Your task to perform on an android device: change timer sound Image 0: 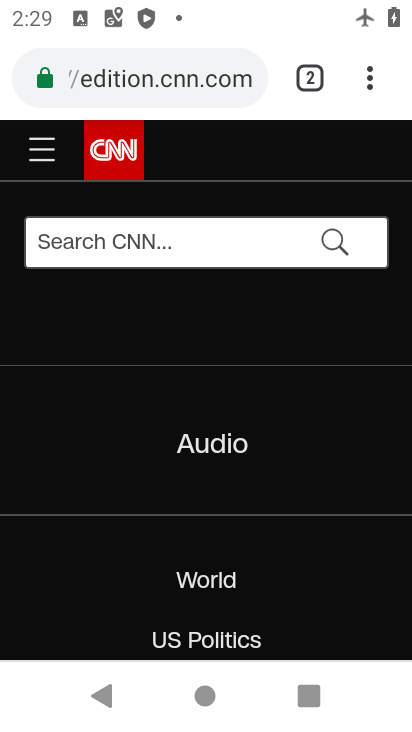
Step 0: press home button
Your task to perform on an android device: change timer sound Image 1: 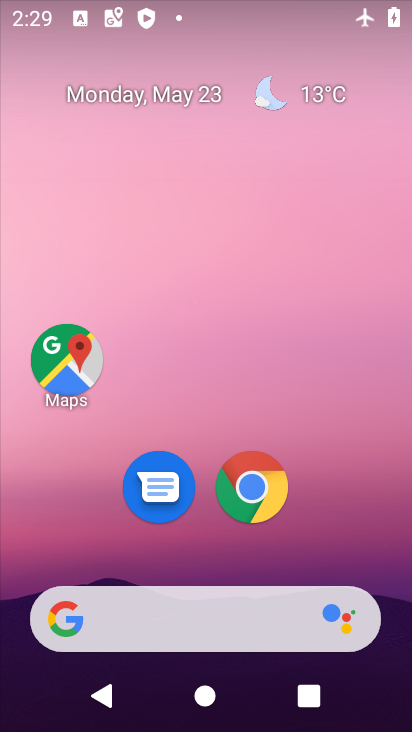
Step 1: drag from (390, 630) to (352, 37)
Your task to perform on an android device: change timer sound Image 2: 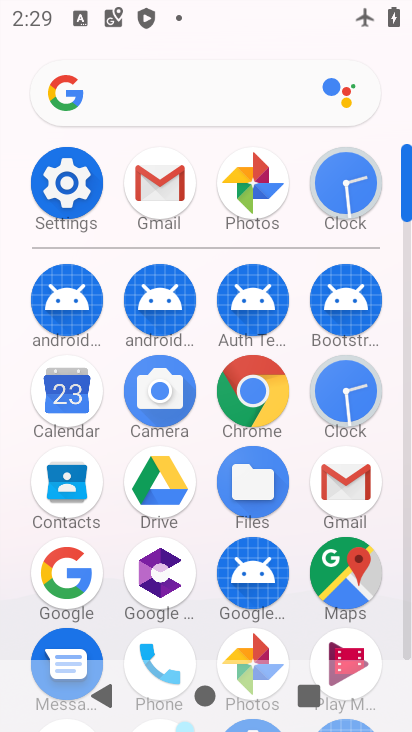
Step 2: click (404, 634)
Your task to perform on an android device: change timer sound Image 3: 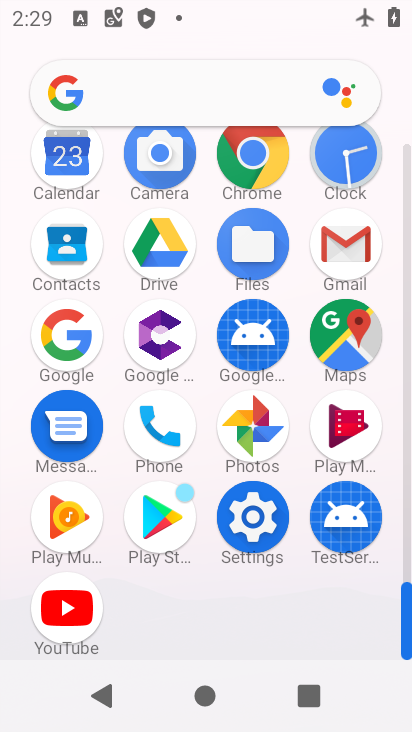
Step 3: click (247, 516)
Your task to perform on an android device: change timer sound Image 4: 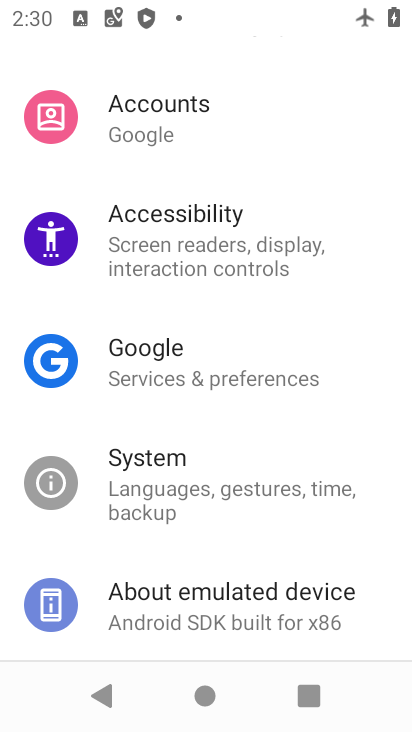
Step 4: press home button
Your task to perform on an android device: change timer sound Image 5: 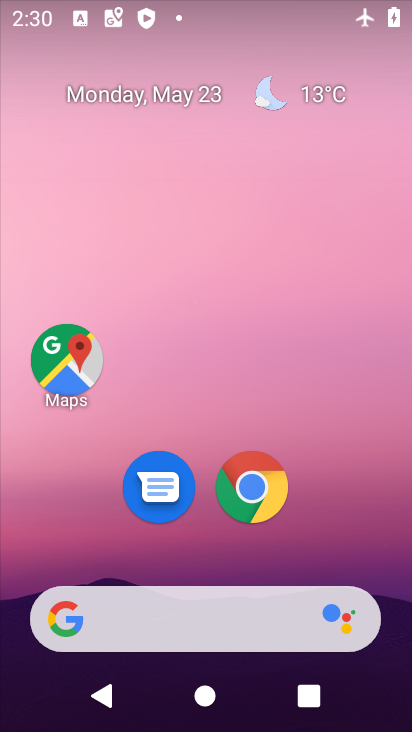
Step 5: drag from (403, 594) to (354, 40)
Your task to perform on an android device: change timer sound Image 6: 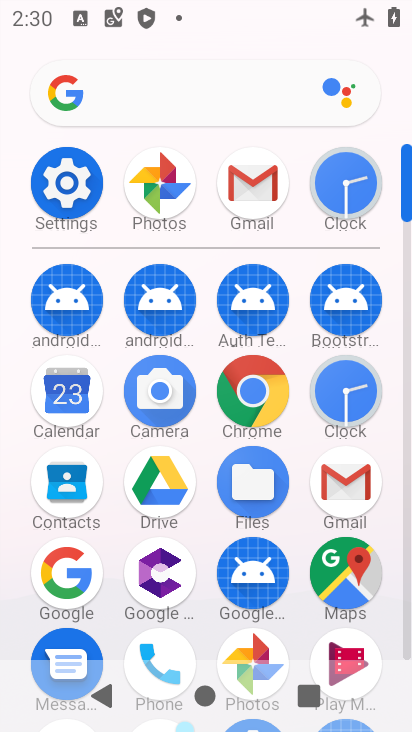
Step 6: click (347, 389)
Your task to perform on an android device: change timer sound Image 7: 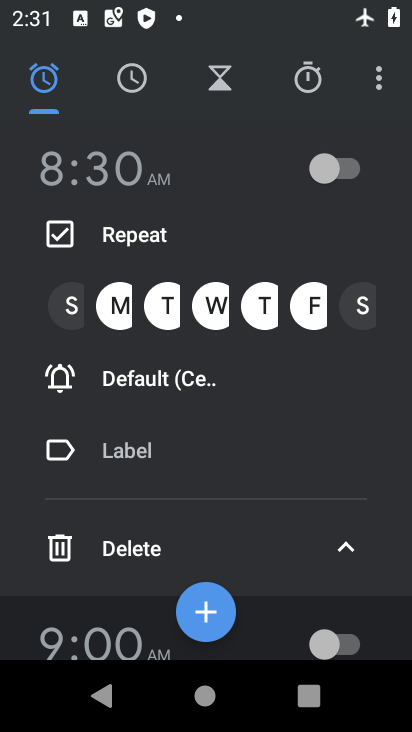
Step 7: click (382, 83)
Your task to perform on an android device: change timer sound Image 8: 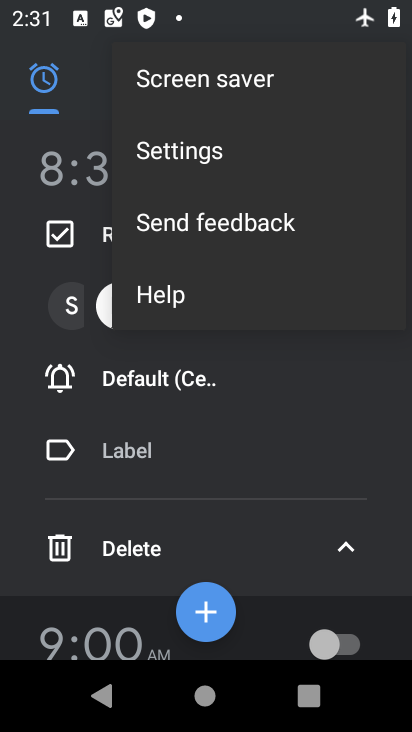
Step 8: click (182, 163)
Your task to perform on an android device: change timer sound Image 9: 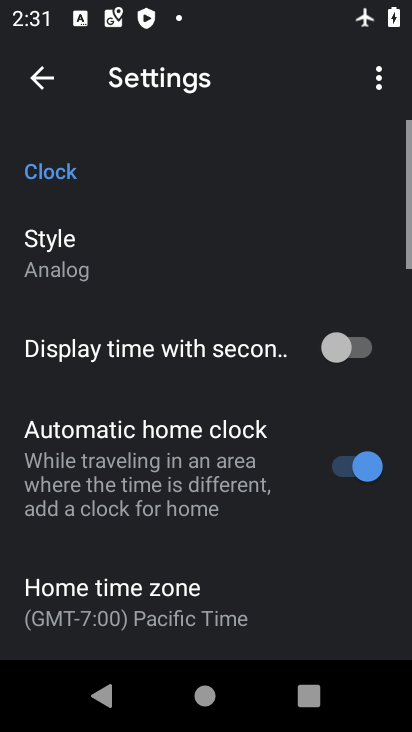
Step 9: drag from (248, 592) to (205, 21)
Your task to perform on an android device: change timer sound Image 10: 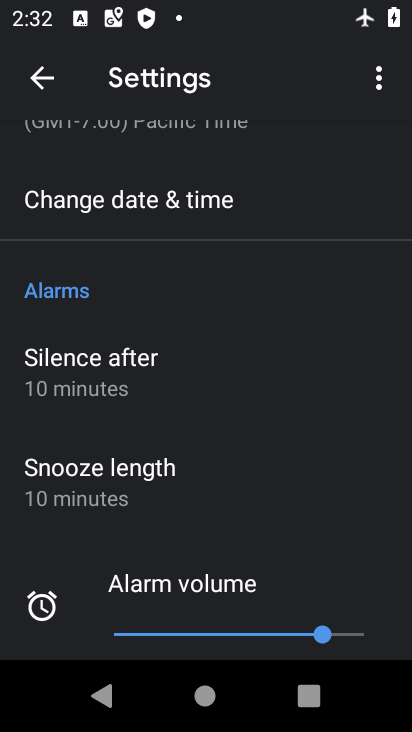
Step 10: drag from (179, 483) to (207, 58)
Your task to perform on an android device: change timer sound Image 11: 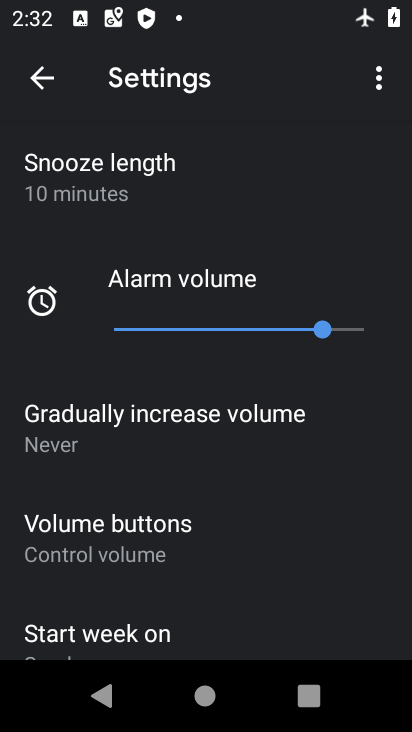
Step 11: drag from (172, 612) to (196, 222)
Your task to perform on an android device: change timer sound Image 12: 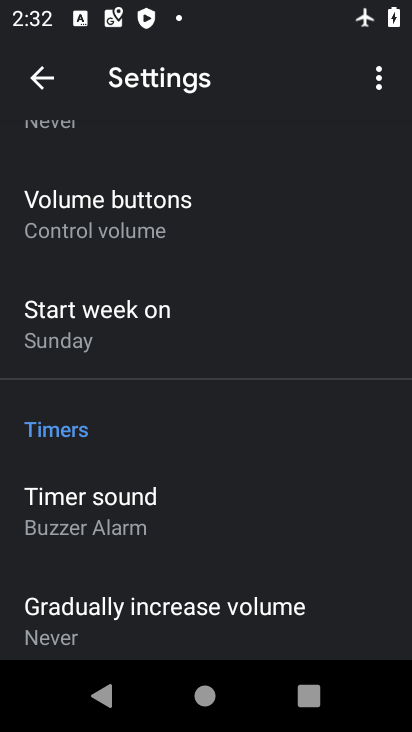
Step 12: click (145, 506)
Your task to perform on an android device: change timer sound Image 13: 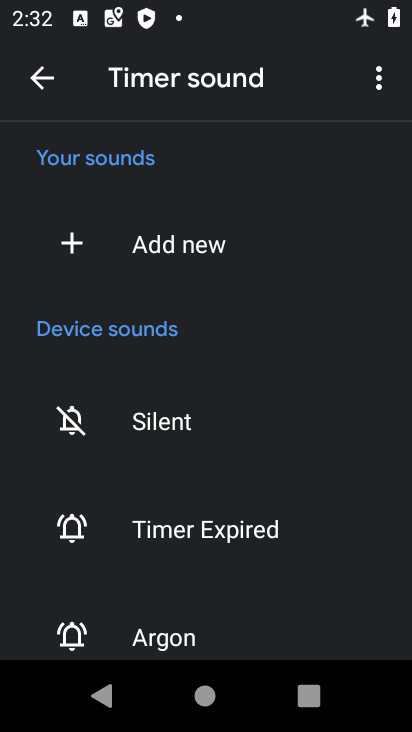
Step 13: click (215, 541)
Your task to perform on an android device: change timer sound Image 14: 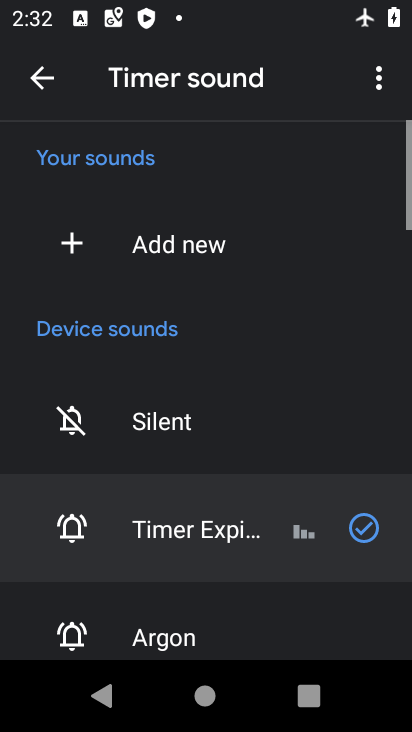
Step 14: task complete